Your task to perform on an android device: Go to battery settings Image 0: 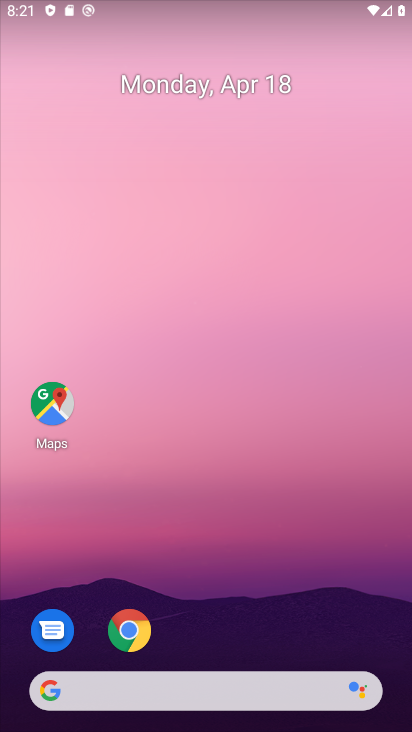
Step 0: drag from (245, 577) to (279, 123)
Your task to perform on an android device: Go to battery settings Image 1: 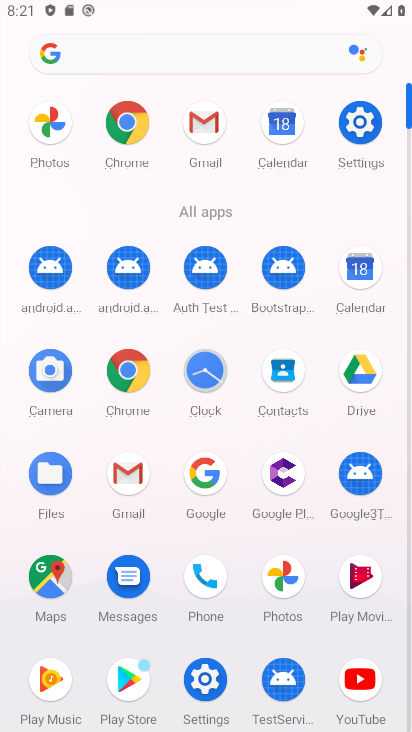
Step 1: click (367, 135)
Your task to perform on an android device: Go to battery settings Image 2: 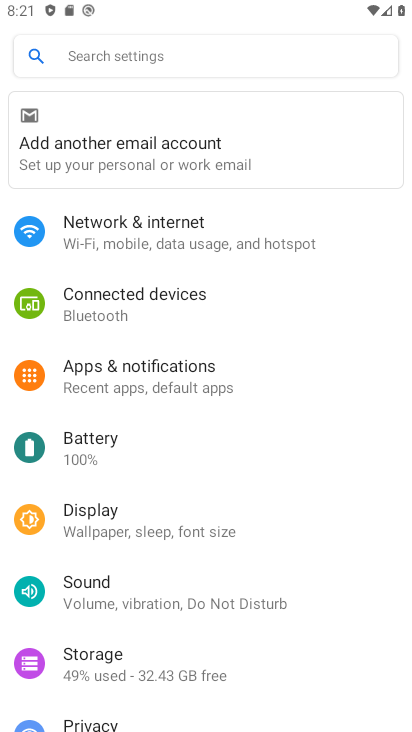
Step 2: click (130, 455)
Your task to perform on an android device: Go to battery settings Image 3: 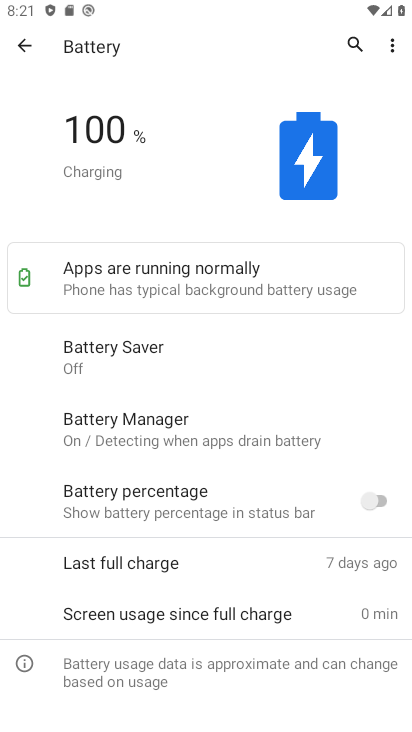
Step 3: click (395, 37)
Your task to perform on an android device: Go to battery settings Image 4: 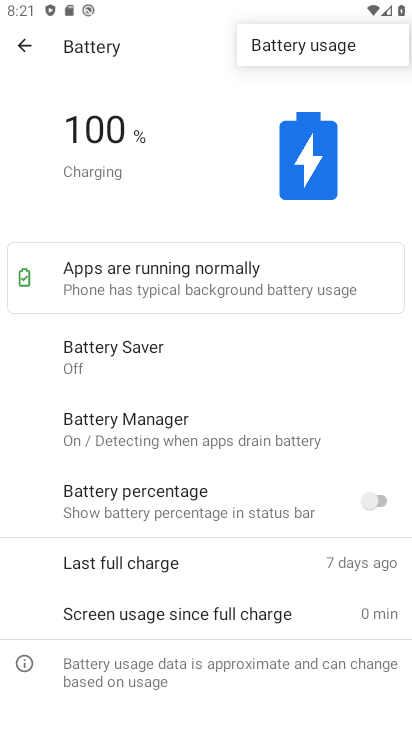
Step 4: task complete